Your task to perform on an android device: turn on javascript in the chrome app Image 0: 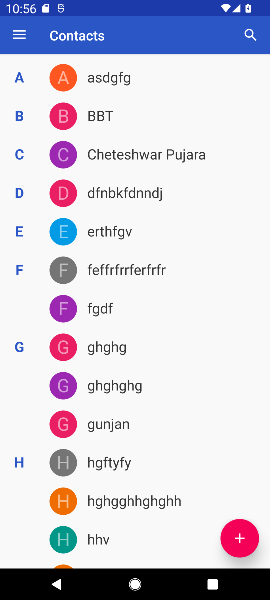
Step 0: press home button
Your task to perform on an android device: turn on javascript in the chrome app Image 1: 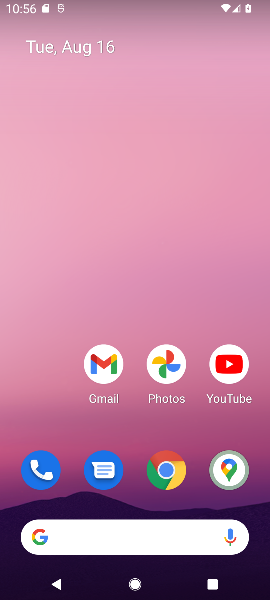
Step 1: click (168, 469)
Your task to perform on an android device: turn on javascript in the chrome app Image 2: 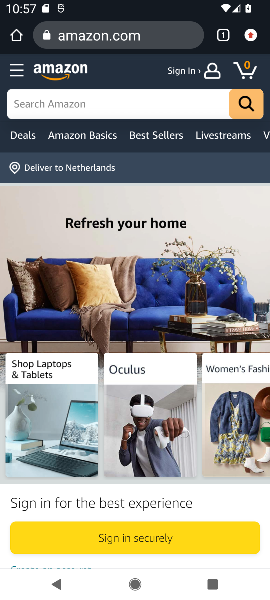
Step 2: press back button
Your task to perform on an android device: turn on javascript in the chrome app Image 3: 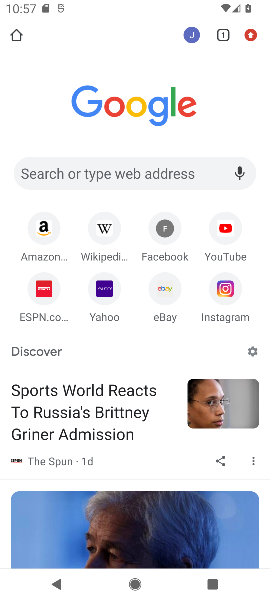
Step 3: click (250, 33)
Your task to perform on an android device: turn on javascript in the chrome app Image 4: 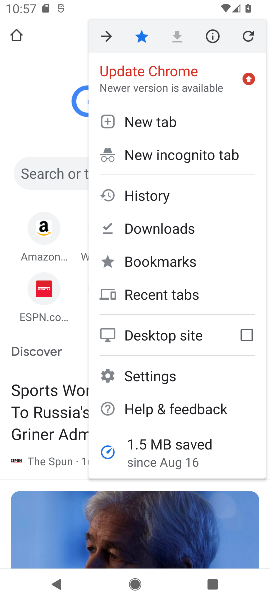
Step 4: click (156, 381)
Your task to perform on an android device: turn on javascript in the chrome app Image 5: 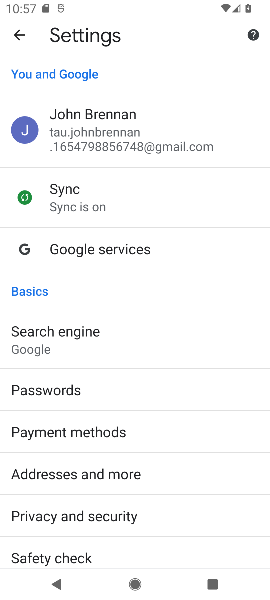
Step 5: drag from (153, 445) to (175, 97)
Your task to perform on an android device: turn on javascript in the chrome app Image 6: 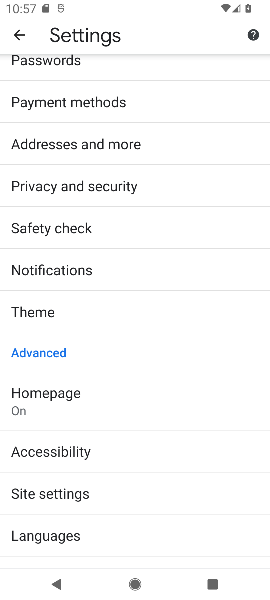
Step 6: click (81, 492)
Your task to perform on an android device: turn on javascript in the chrome app Image 7: 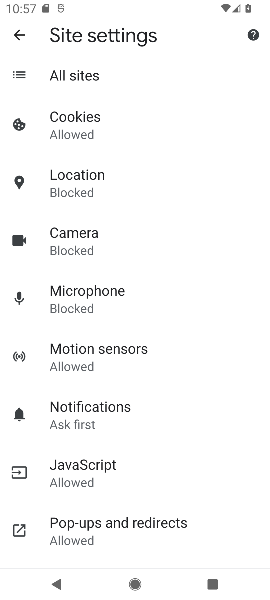
Step 7: click (103, 467)
Your task to perform on an android device: turn on javascript in the chrome app Image 8: 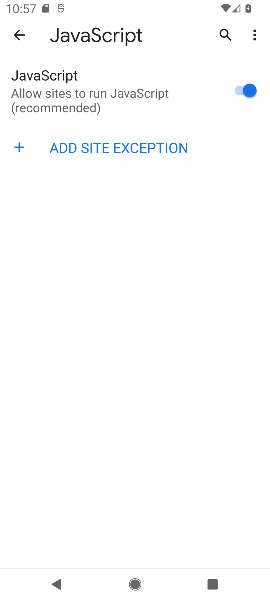
Step 8: task complete